Your task to perform on an android device: turn off notifications settings in the gmail app Image 0: 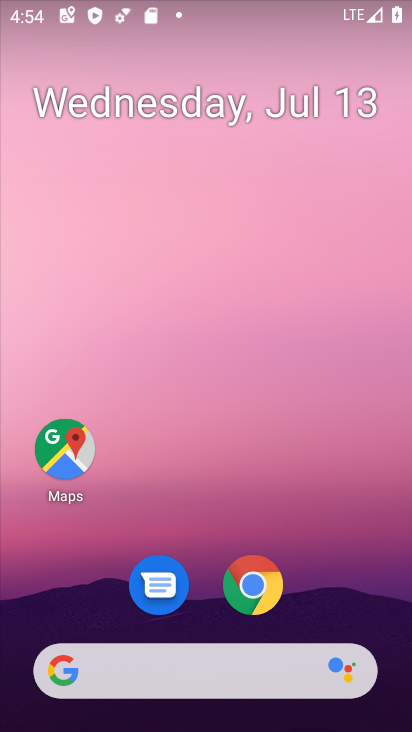
Step 0: drag from (244, 502) to (265, 44)
Your task to perform on an android device: turn off notifications settings in the gmail app Image 1: 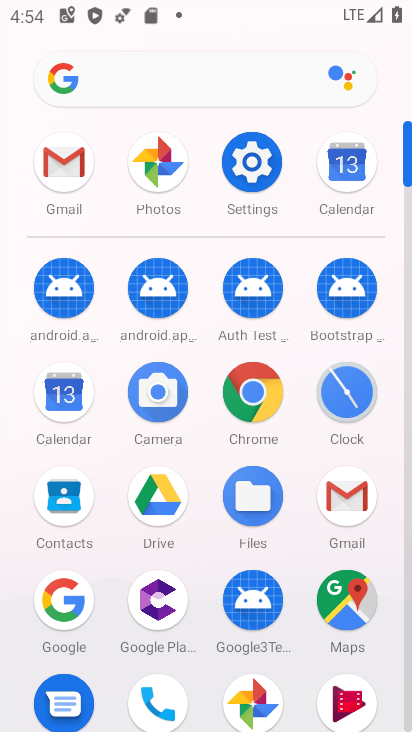
Step 1: click (70, 178)
Your task to perform on an android device: turn off notifications settings in the gmail app Image 2: 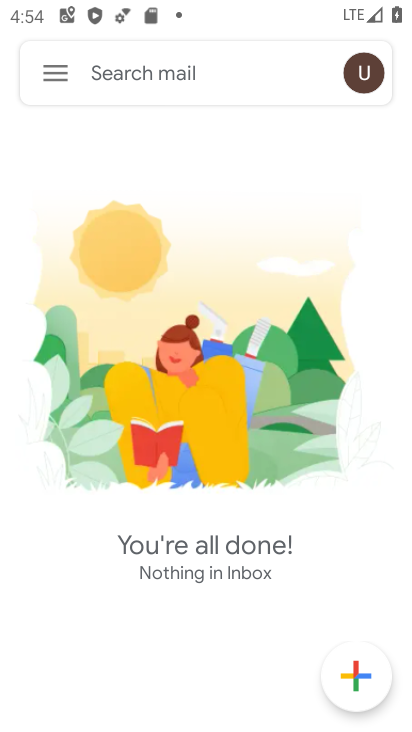
Step 2: click (57, 72)
Your task to perform on an android device: turn off notifications settings in the gmail app Image 3: 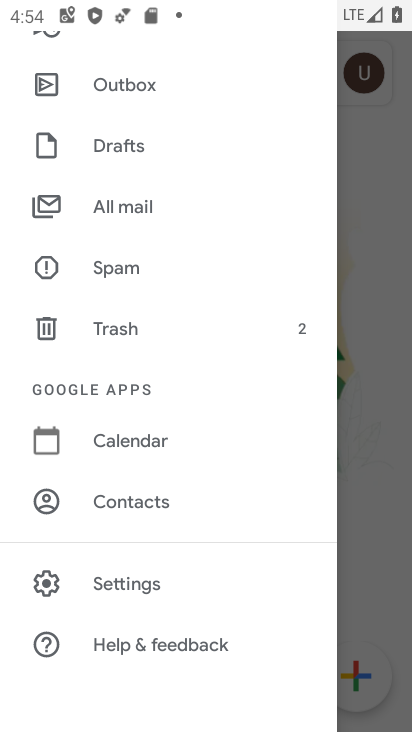
Step 3: click (140, 578)
Your task to perform on an android device: turn off notifications settings in the gmail app Image 4: 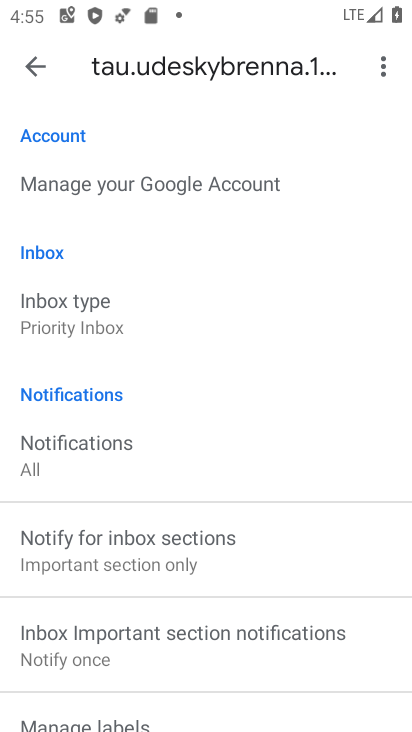
Step 4: drag from (244, 416) to (256, 154)
Your task to perform on an android device: turn off notifications settings in the gmail app Image 5: 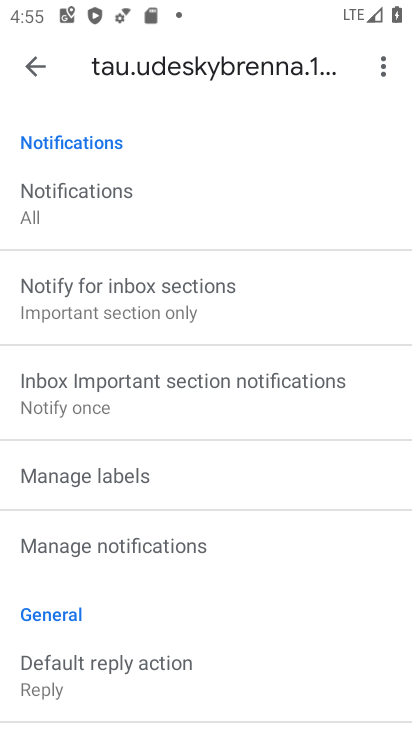
Step 5: click (177, 540)
Your task to perform on an android device: turn off notifications settings in the gmail app Image 6: 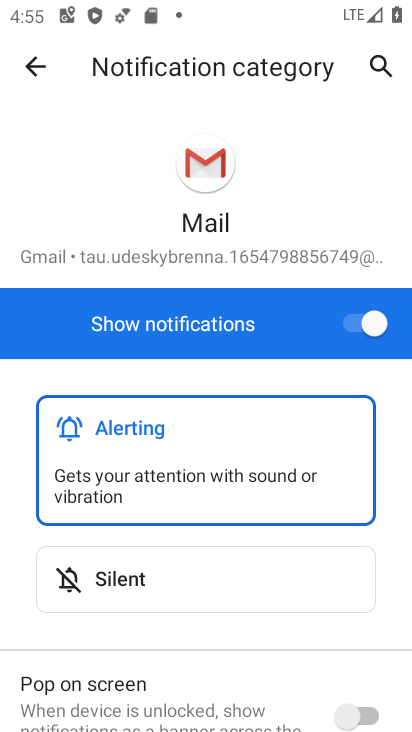
Step 6: click (358, 323)
Your task to perform on an android device: turn off notifications settings in the gmail app Image 7: 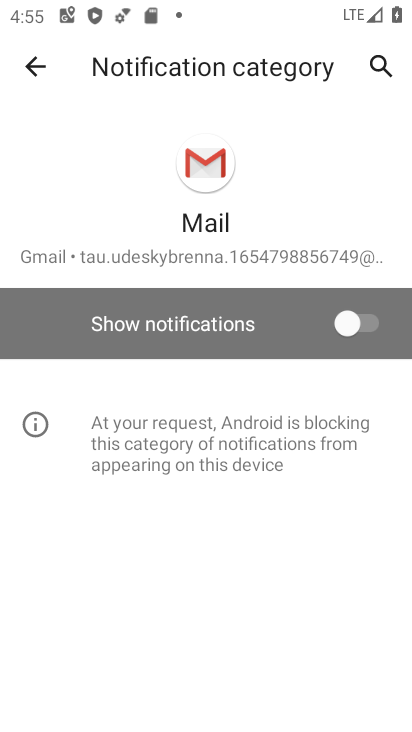
Step 7: task complete